Your task to perform on an android device: clear all cookies in the chrome app Image 0: 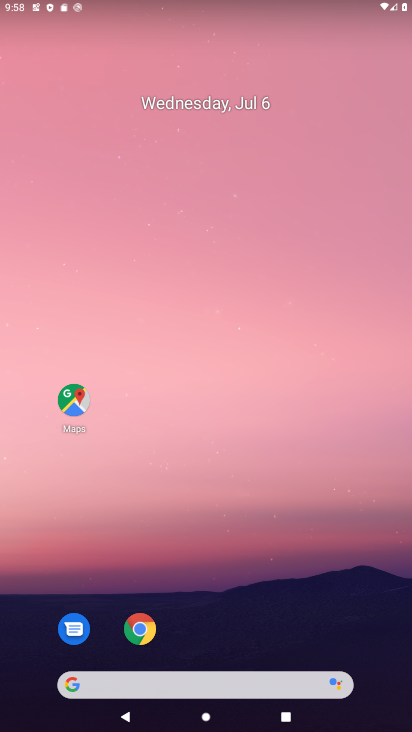
Step 0: click (143, 627)
Your task to perform on an android device: clear all cookies in the chrome app Image 1: 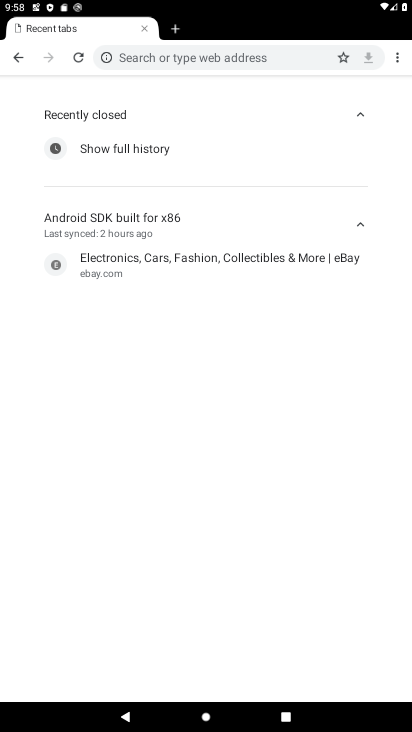
Step 1: click (394, 54)
Your task to perform on an android device: clear all cookies in the chrome app Image 2: 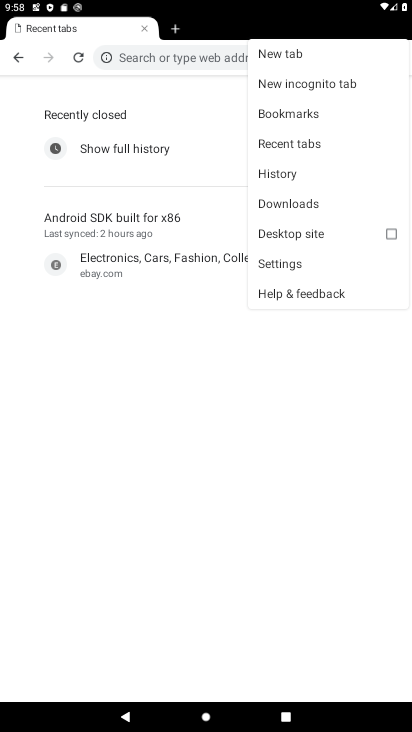
Step 2: click (290, 265)
Your task to perform on an android device: clear all cookies in the chrome app Image 3: 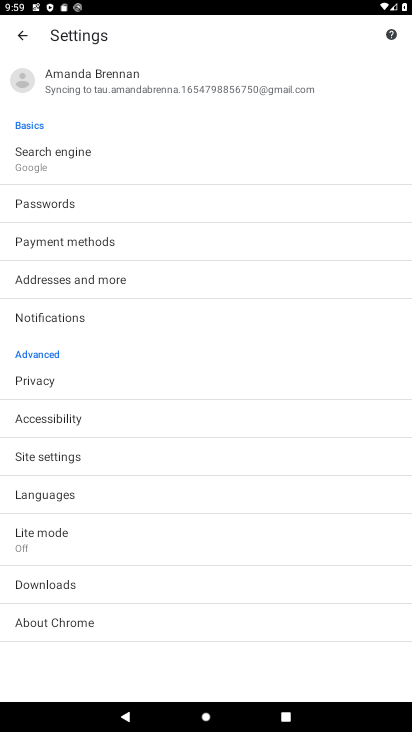
Step 3: click (38, 384)
Your task to perform on an android device: clear all cookies in the chrome app Image 4: 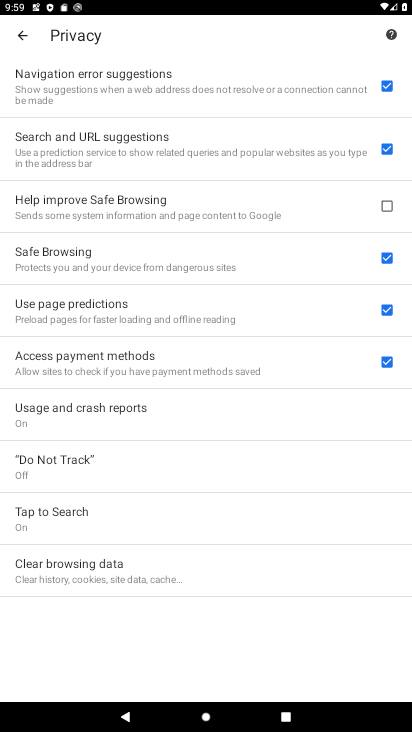
Step 4: drag from (155, 544) to (129, 372)
Your task to perform on an android device: clear all cookies in the chrome app Image 5: 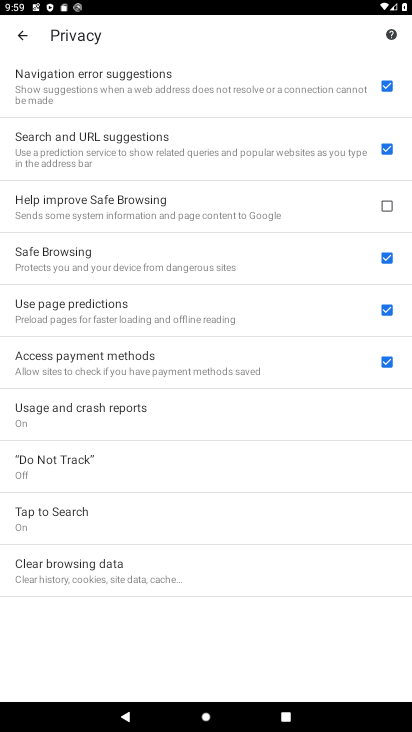
Step 5: click (116, 577)
Your task to perform on an android device: clear all cookies in the chrome app Image 6: 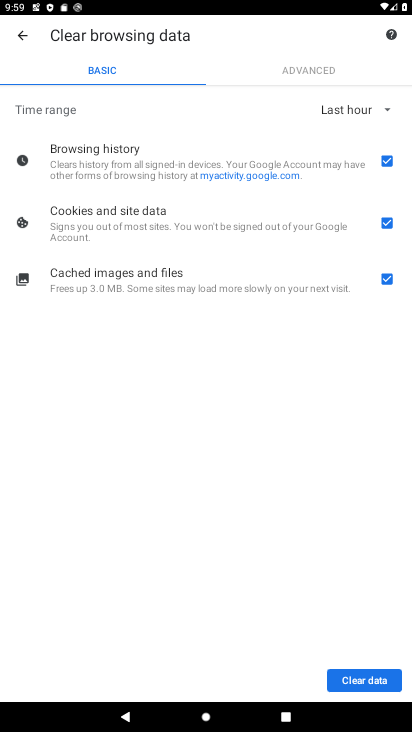
Step 6: click (386, 159)
Your task to perform on an android device: clear all cookies in the chrome app Image 7: 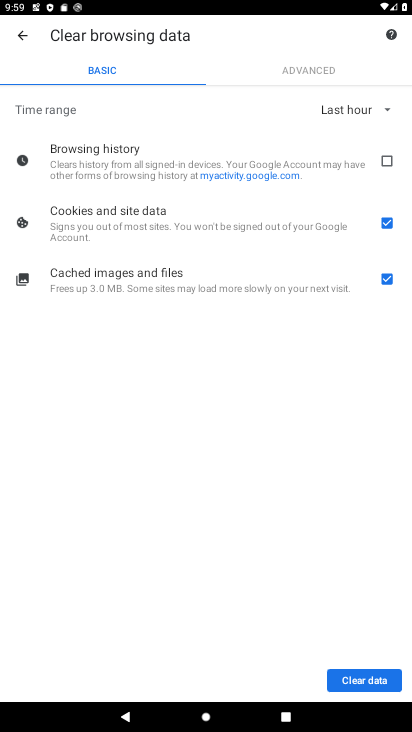
Step 7: click (389, 277)
Your task to perform on an android device: clear all cookies in the chrome app Image 8: 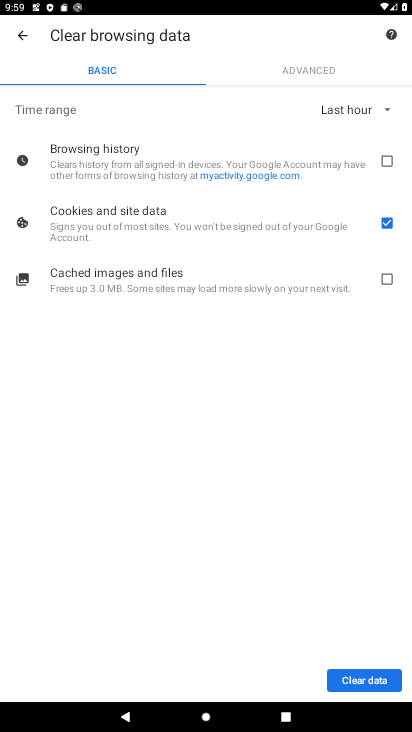
Step 8: click (361, 690)
Your task to perform on an android device: clear all cookies in the chrome app Image 9: 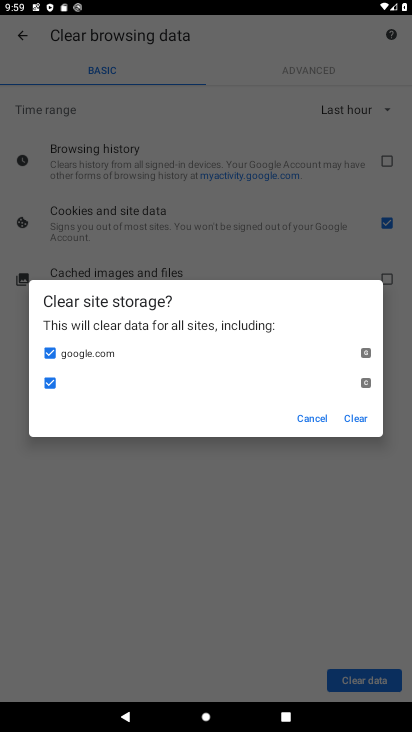
Step 9: click (357, 421)
Your task to perform on an android device: clear all cookies in the chrome app Image 10: 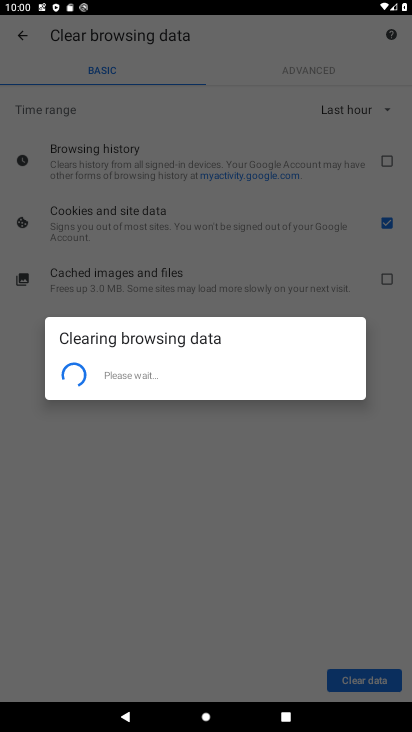
Step 10: task complete